Your task to perform on an android device: add a label to a message in the gmail app Image 0: 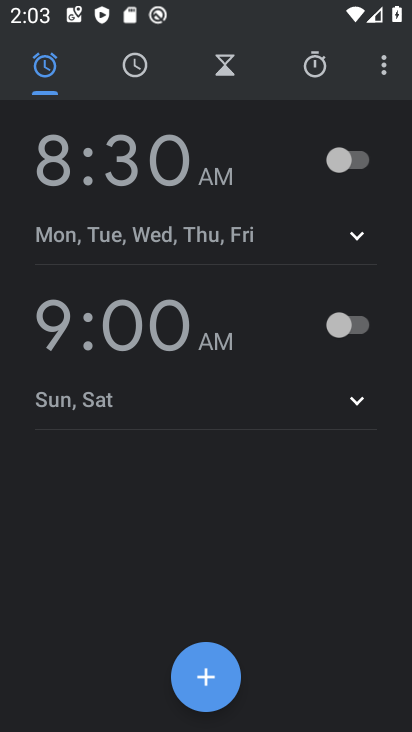
Step 0: press home button
Your task to perform on an android device: add a label to a message in the gmail app Image 1: 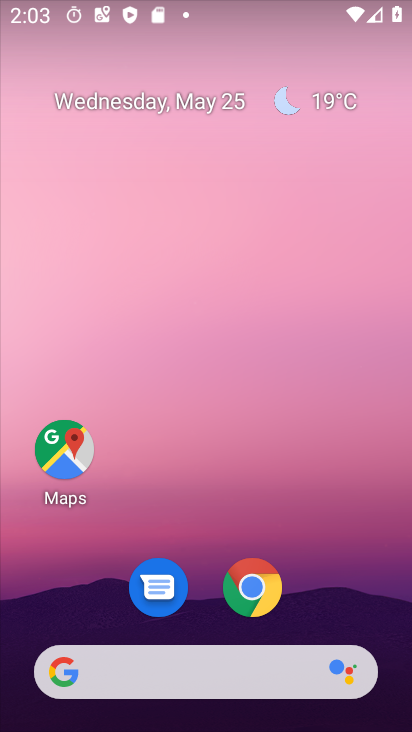
Step 1: drag from (199, 610) to (199, 176)
Your task to perform on an android device: add a label to a message in the gmail app Image 2: 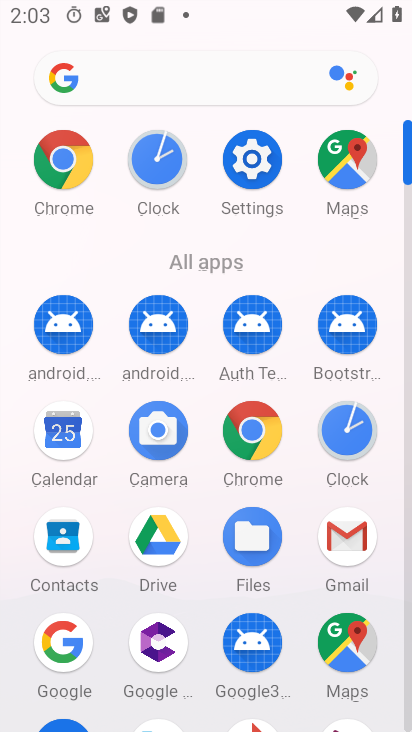
Step 2: click (343, 528)
Your task to perform on an android device: add a label to a message in the gmail app Image 3: 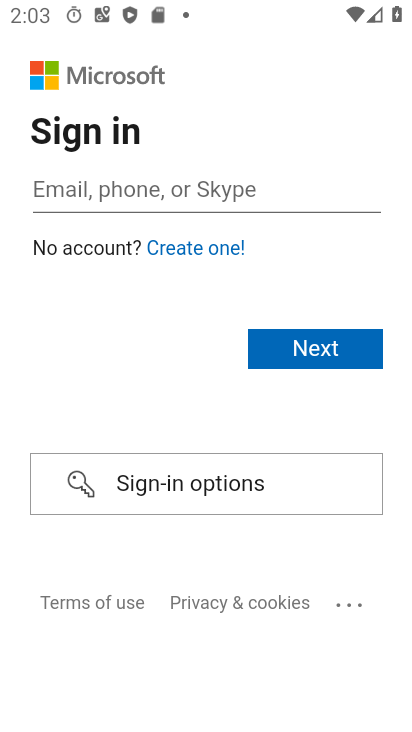
Step 3: press back button
Your task to perform on an android device: add a label to a message in the gmail app Image 4: 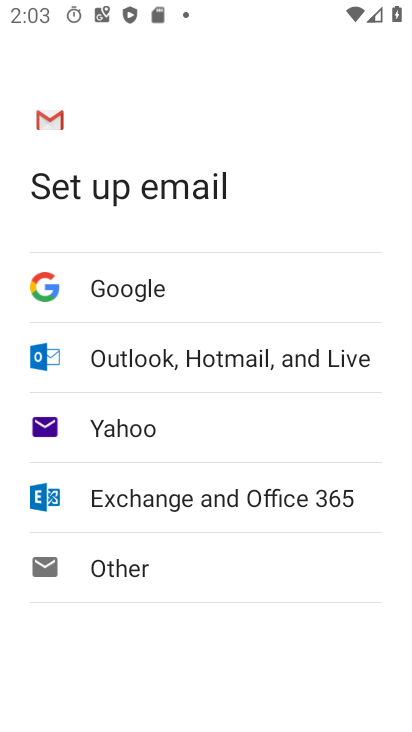
Step 4: press back button
Your task to perform on an android device: add a label to a message in the gmail app Image 5: 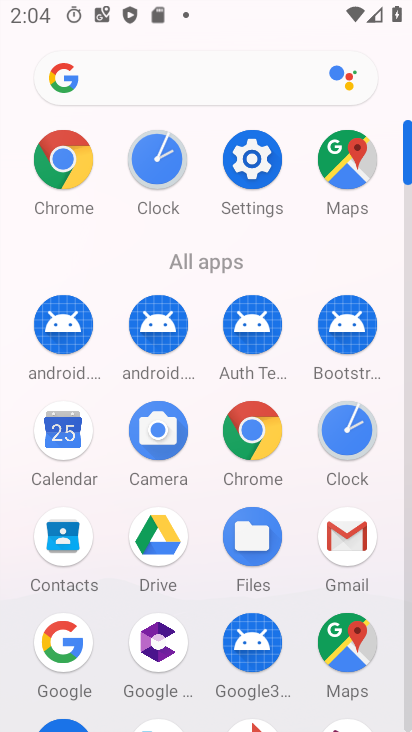
Step 5: click (338, 534)
Your task to perform on an android device: add a label to a message in the gmail app Image 6: 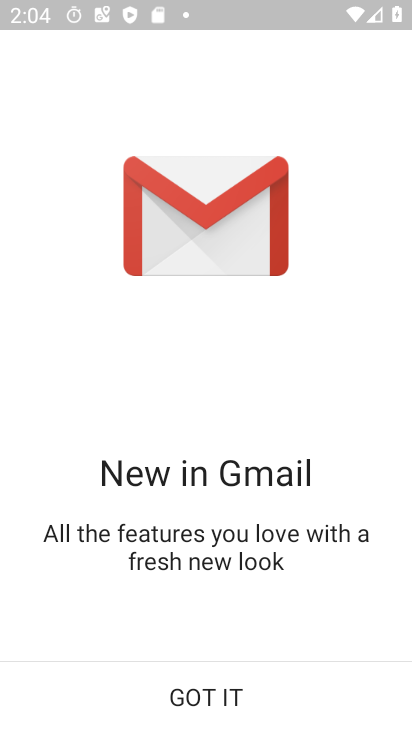
Step 6: click (237, 697)
Your task to perform on an android device: add a label to a message in the gmail app Image 7: 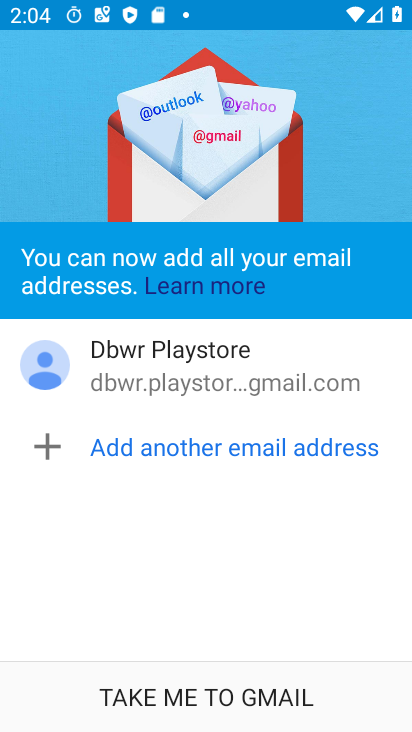
Step 7: click (237, 697)
Your task to perform on an android device: add a label to a message in the gmail app Image 8: 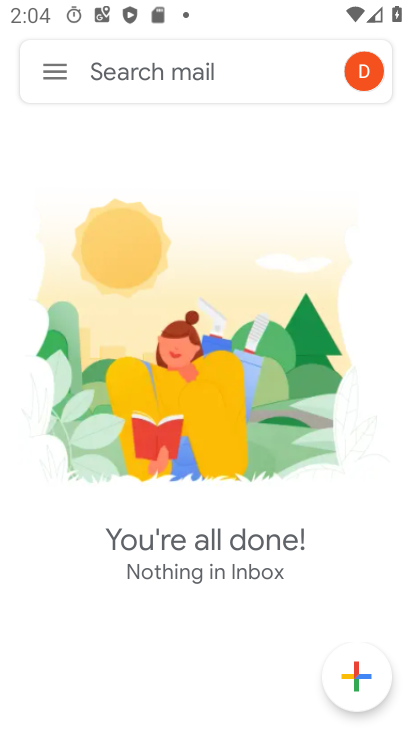
Step 8: click (58, 64)
Your task to perform on an android device: add a label to a message in the gmail app Image 9: 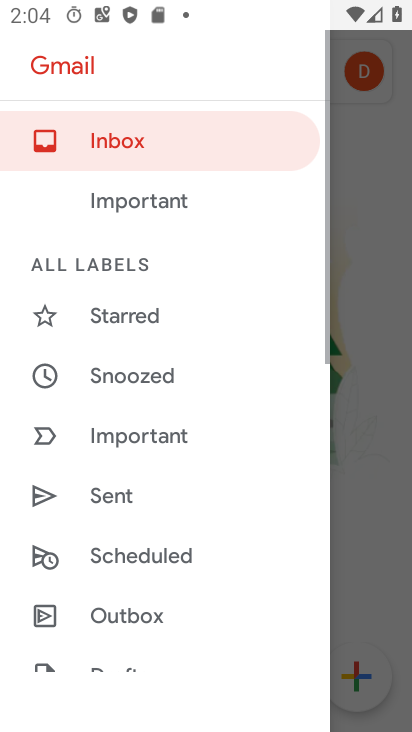
Step 9: drag from (162, 554) to (256, 82)
Your task to perform on an android device: add a label to a message in the gmail app Image 10: 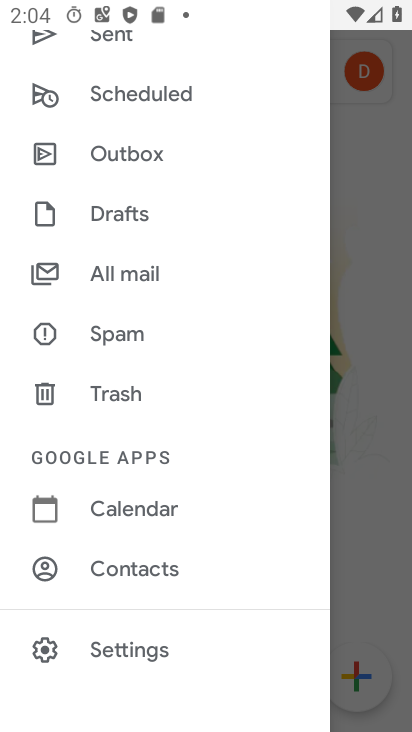
Step 10: drag from (180, 595) to (211, 485)
Your task to perform on an android device: add a label to a message in the gmail app Image 11: 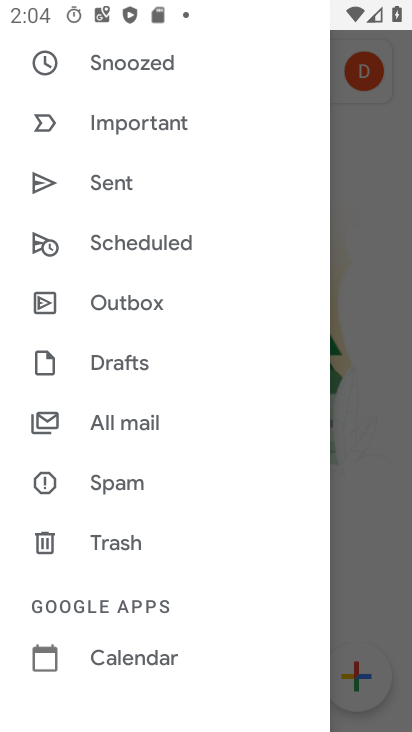
Step 11: click (156, 428)
Your task to perform on an android device: add a label to a message in the gmail app Image 12: 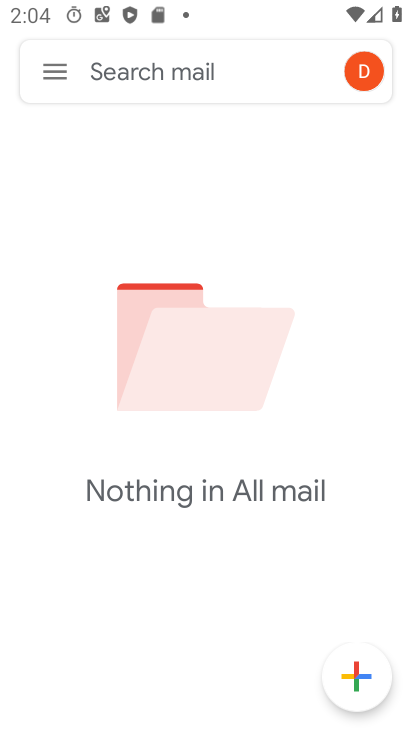
Step 12: task complete